Your task to perform on an android device: find snoozed emails in the gmail app Image 0: 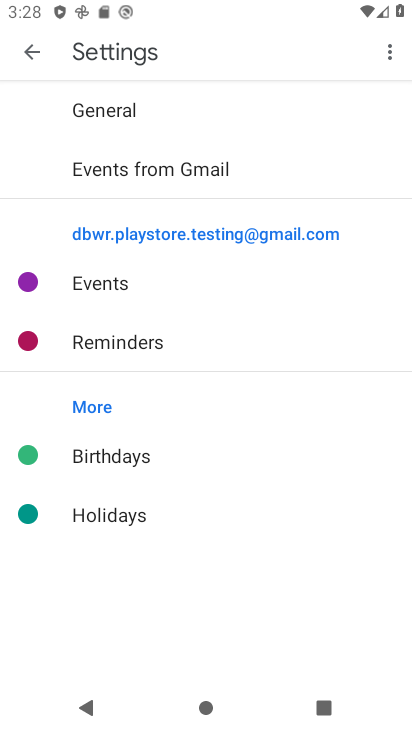
Step 0: press home button
Your task to perform on an android device: find snoozed emails in the gmail app Image 1: 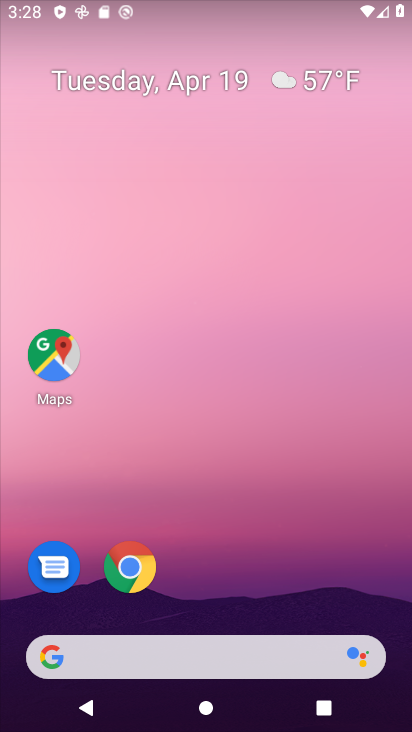
Step 1: drag from (358, 601) to (370, 135)
Your task to perform on an android device: find snoozed emails in the gmail app Image 2: 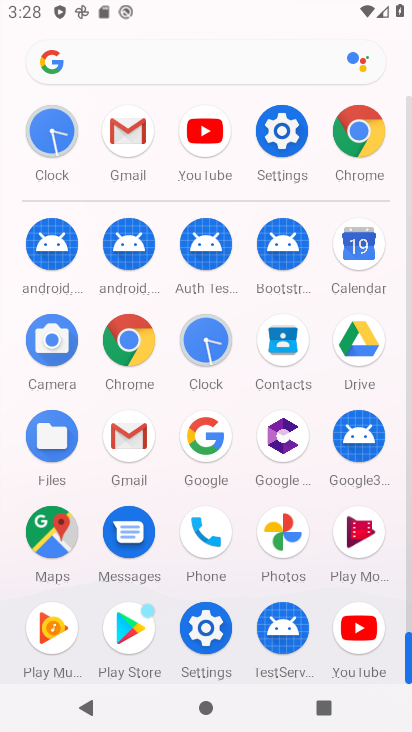
Step 2: click (122, 450)
Your task to perform on an android device: find snoozed emails in the gmail app Image 3: 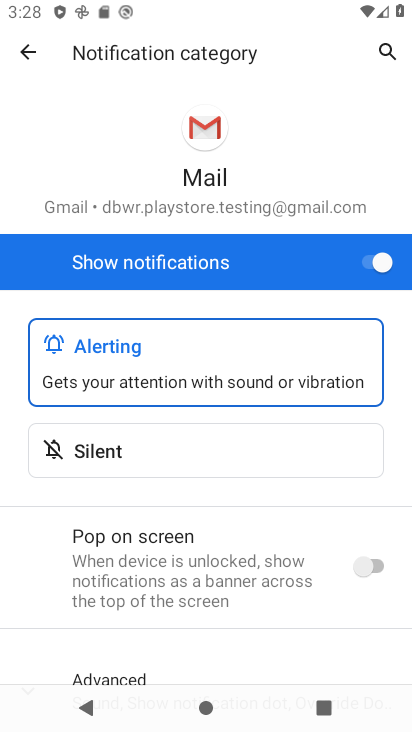
Step 3: press back button
Your task to perform on an android device: find snoozed emails in the gmail app Image 4: 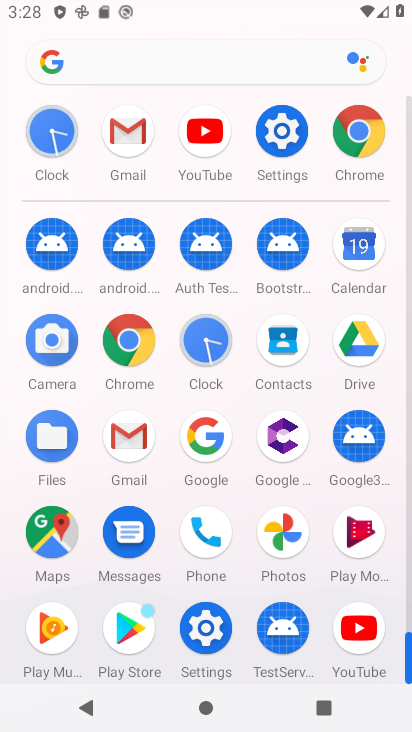
Step 4: click (131, 433)
Your task to perform on an android device: find snoozed emails in the gmail app Image 5: 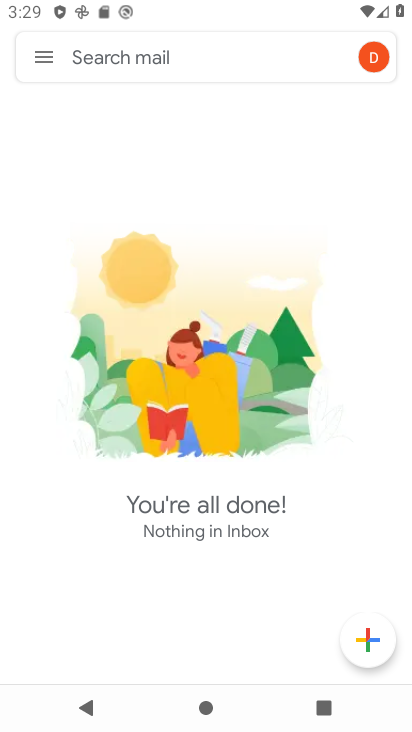
Step 5: click (39, 54)
Your task to perform on an android device: find snoozed emails in the gmail app Image 6: 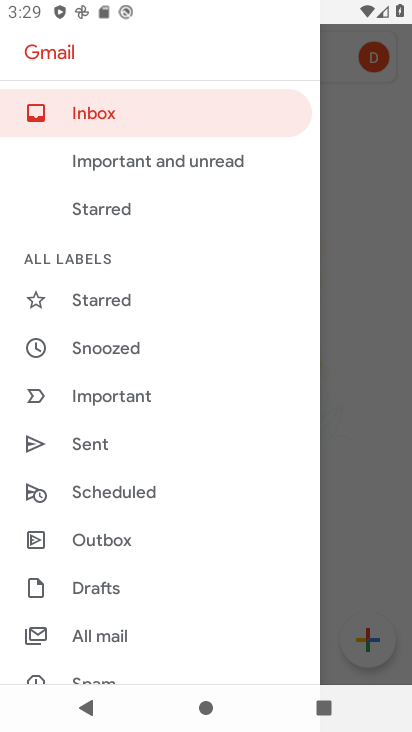
Step 6: drag from (272, 582) to (279, 359)
Your task to perform on an android device: find snoozed emails in the gmail app Image 7: 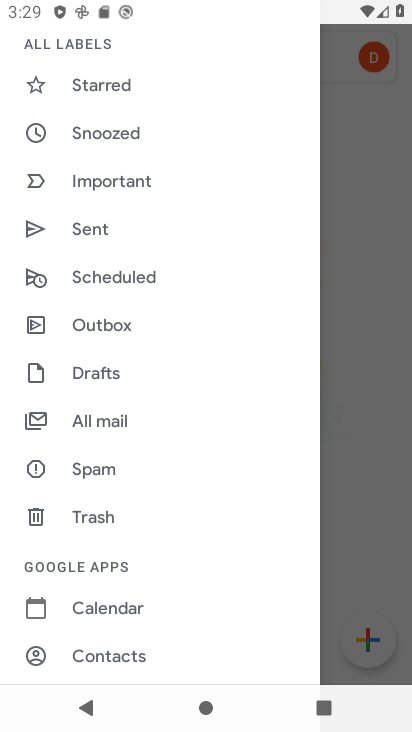
Step 7: drag from (251, 612) to (261, 352)
Your task to perform on an android device: find snoozed emails in the gmail app Image 8: 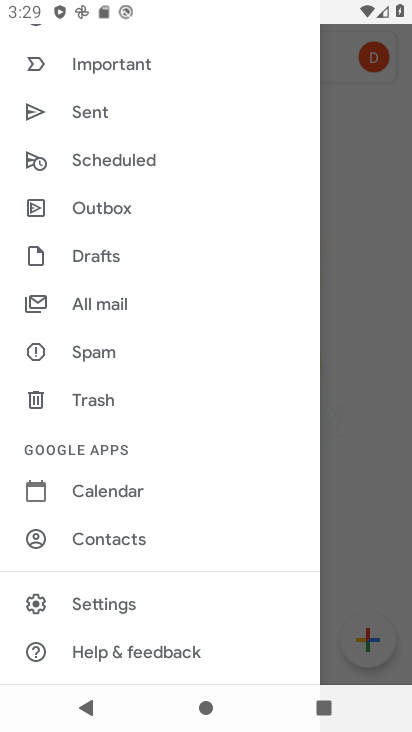
Step 8: drag from (267, 259) to (254, 490)
Your task to perform on an android device: find snoozed emails in the gmail app Image 9: 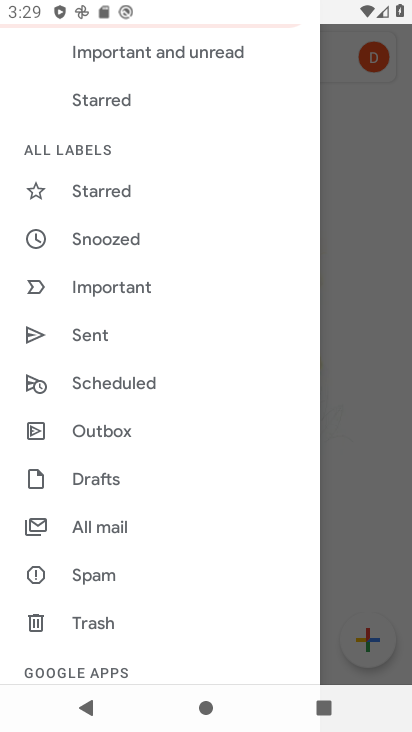
Step 9: drag from (268, 237) to (262, 477)
Your task to perform on an android device: find snoozed emails in the gmail app Image 10: 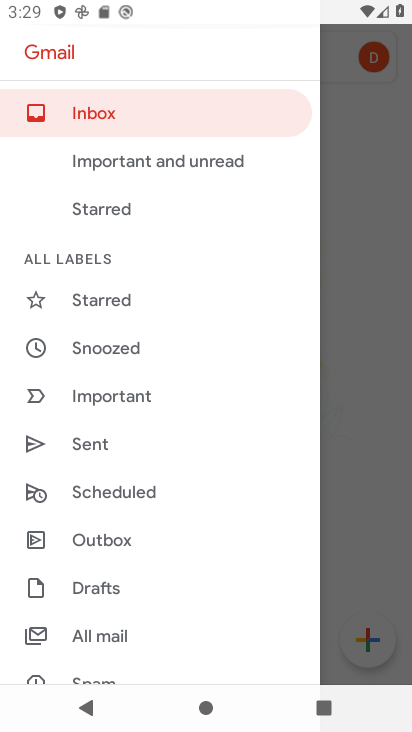
Step 10: click (112, 346)
Your task to perform on an android device: find snoozed emails in the gmail app Image 11: 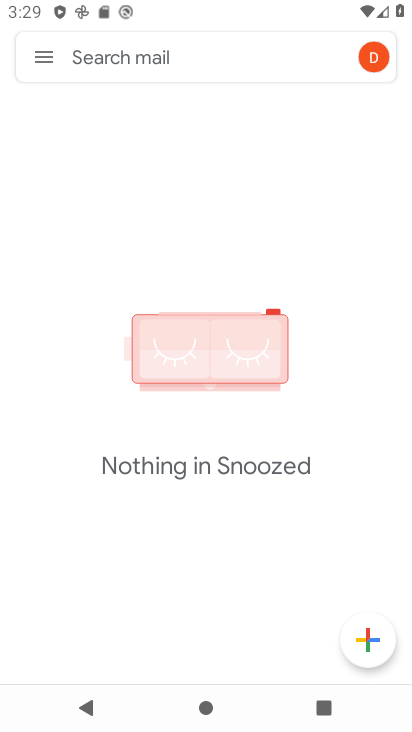
Step 11: task complete